Your task to perform on an android device: Open calendar and show me the first week of next month Image 0: 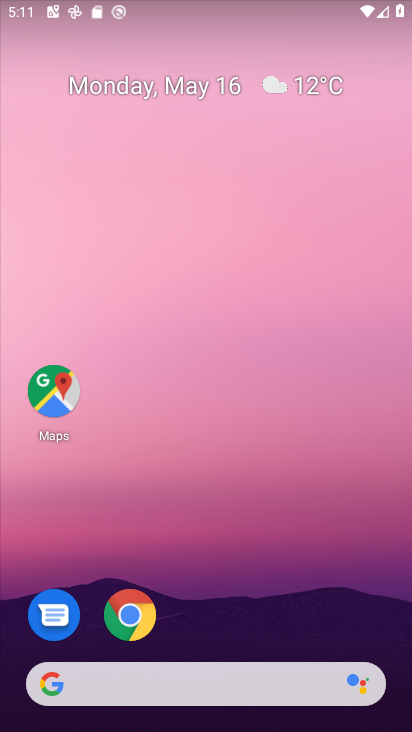
Step 0: drag from (244, 623) to (11, 302)
Your task to perform on an android device: Open calendar and show me the first week of next month Image 1: 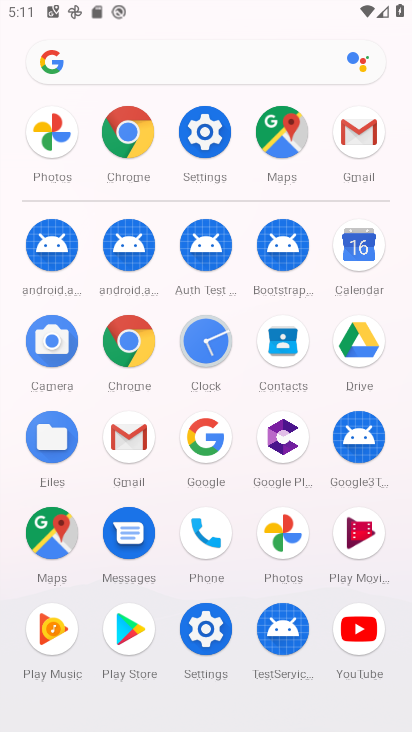
Step 1: drag from (166, 616) to (216, 241)
Your task to perform on an android device: Open calendar and show me the first week of next month Image 2: 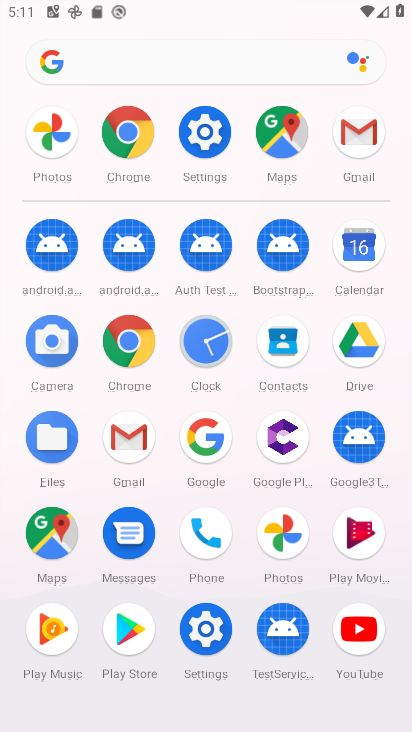
Step 2: click (354, 272)
Your task to perform on an android device: Open calendar and show me the first week of next month Image 3: 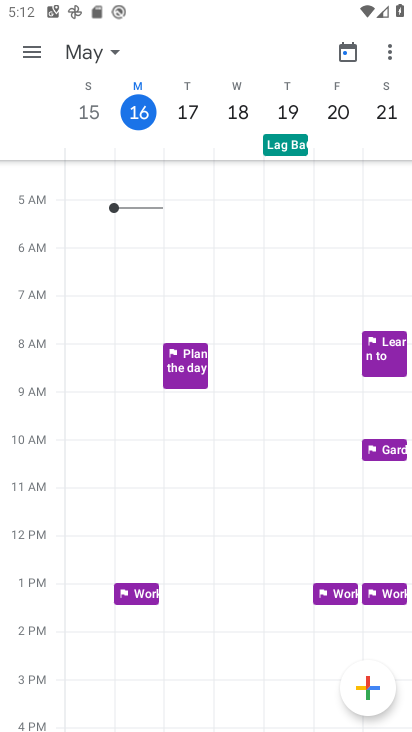
Step 3: click (39, 62)
Your task to perform on an android device: Open calendar and show me the first week of next month Image 4: 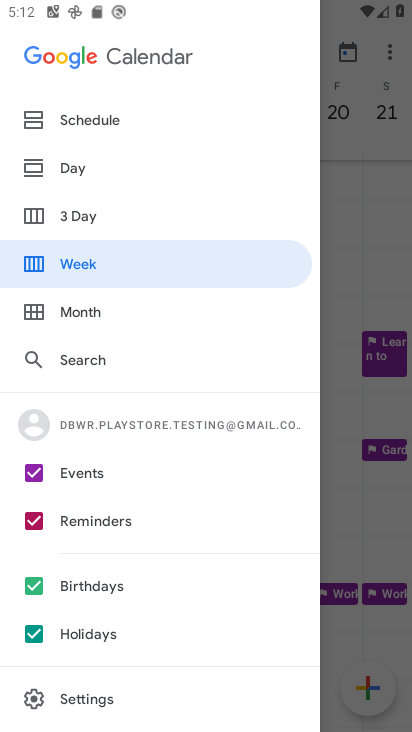
Step 4: click (91, 269)
Your task to perform on an android device: Open calendar and show me the first week of next month Image 5: 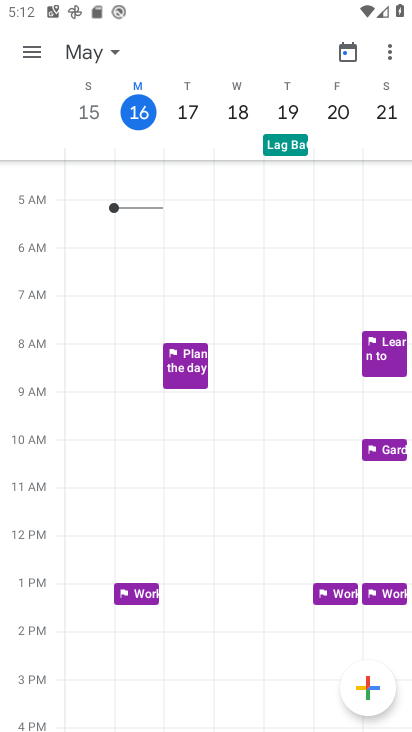
Step 5: click (82, 55)
Your task to perform on an android device: Open calendar and show me the first week of next month Image 6: 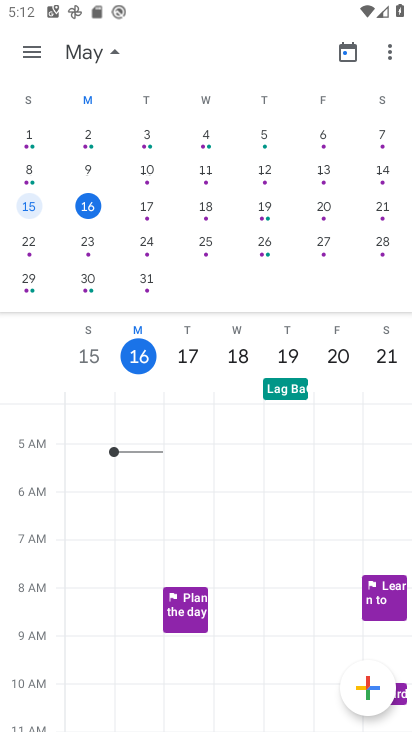
Step 6: drag from (343, 249) to (0, 231)
Your task to perform on an android device: Open calendar and show me the first week of next month Image 7: 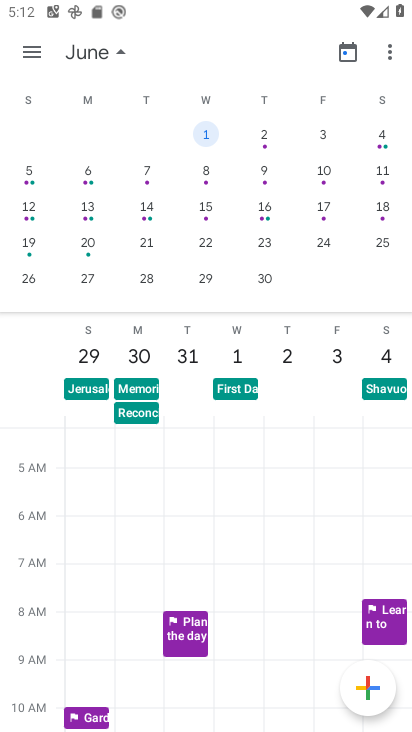
Step 7: click (32, 180)
Your task to perform on an android device: Open calendar and show me the first week of next month Image 8: 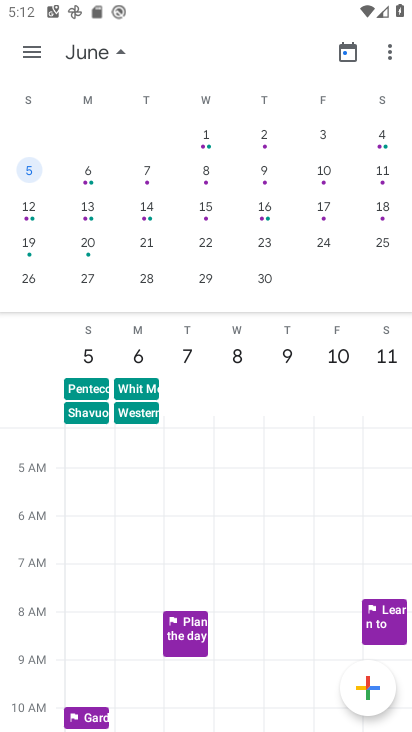
Step 8: task complete